Your task to perform on an android device: Open Google Image 0: 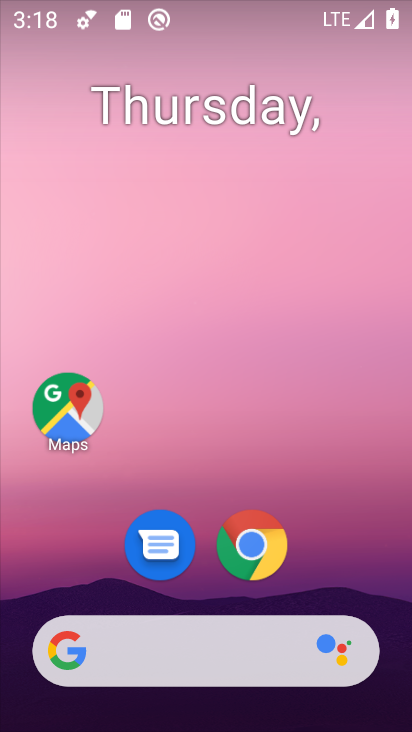
Step 0: drag from (331, 554) to (270, 92)
Your task to perform on an android device: Open Google Image 1: 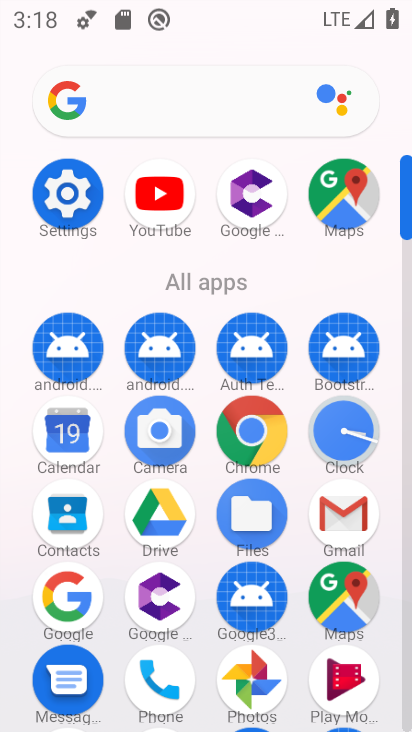
Step 1: click (63, 597)
Your task to perform on an android device: Open Google Image 2: 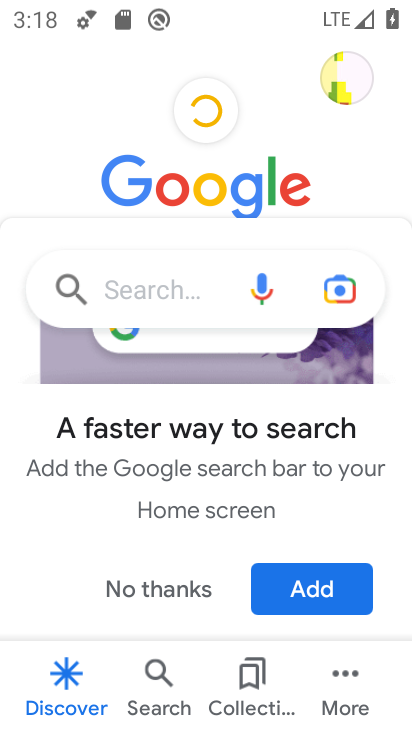
Step 2: task complete